Your task to perform on an android device: Go to CNN.com Image 0: 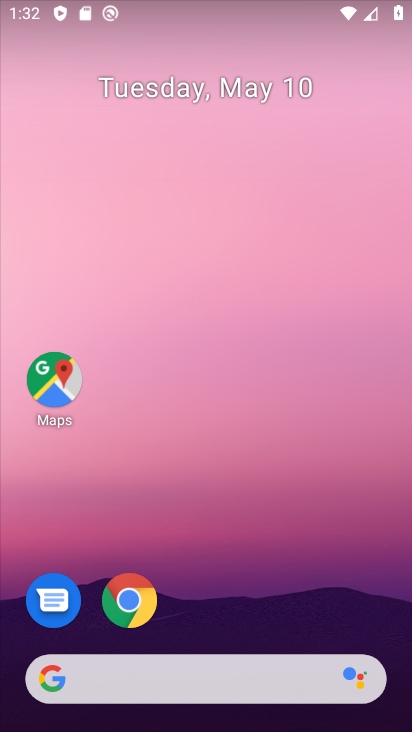
Step 0: drag from (301, 425) to (282, 268)
Your task to perform on an android device: Go to CNN.com Image 1: 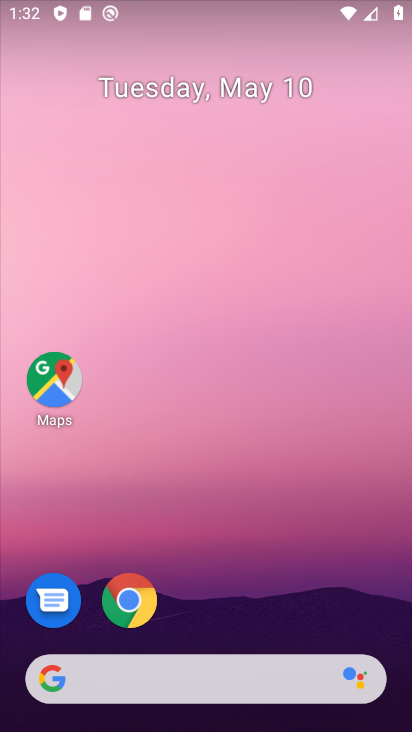
Step 1: click (144, 590)
Your task to perform on an android device: Go to CNN.com Image 2: 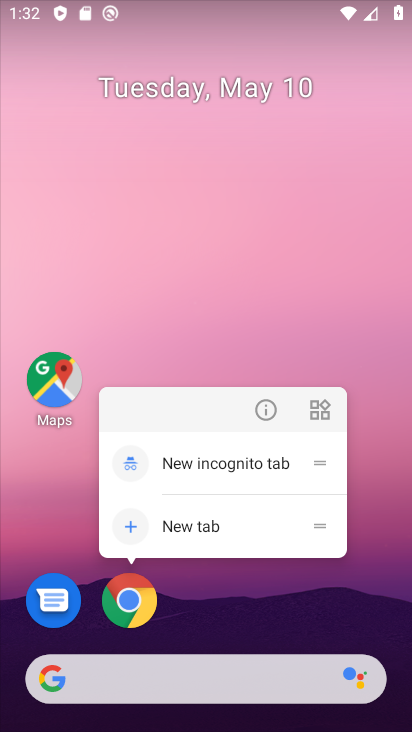
Step 2: click (144, 598)
Your task to perform on an android device: Go to CNN.com Image 3: 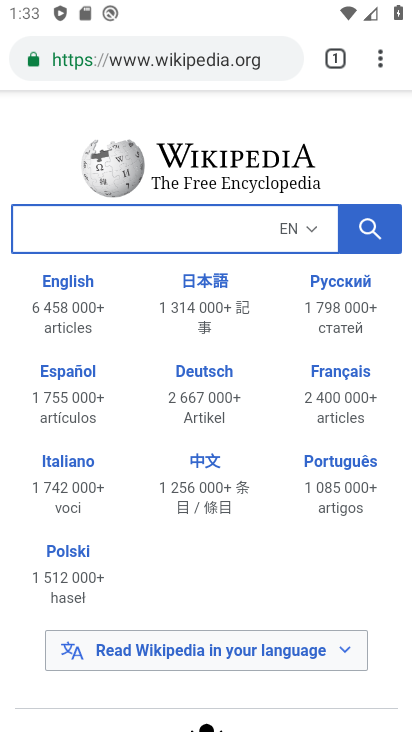
Step 3: click (170, 60)
Your task to perform on an android device: Go to CNN.com Image 4: 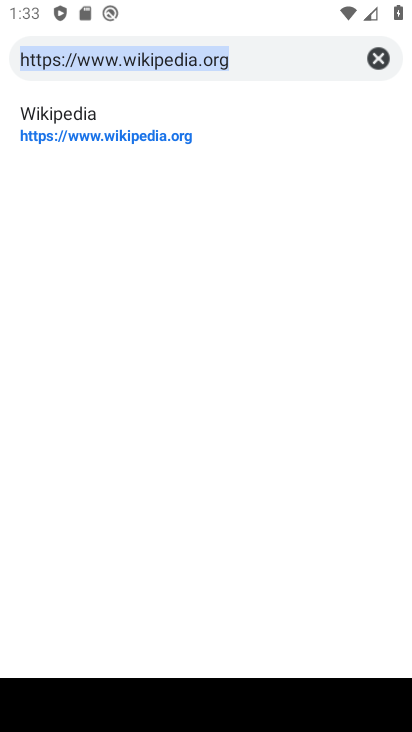
Step 4: type "cnn.com"
Your task to perform on an android device: Go to CNN.com Image 5: 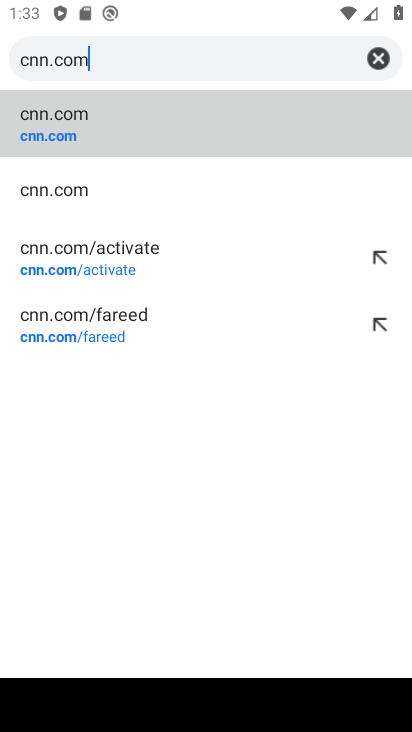
Step 5: click (333, 139)
Your task to perform on an android device: Go to CNN.com Image 6: 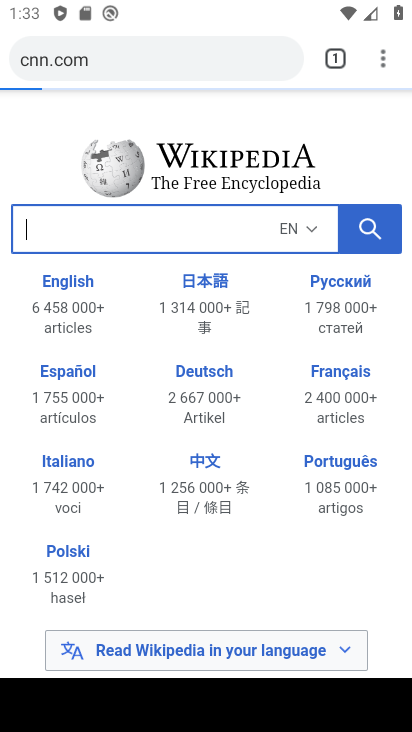
Step 6: click (335, 139)
Your task to perform on an android device: Go to CNN.com Image 7: 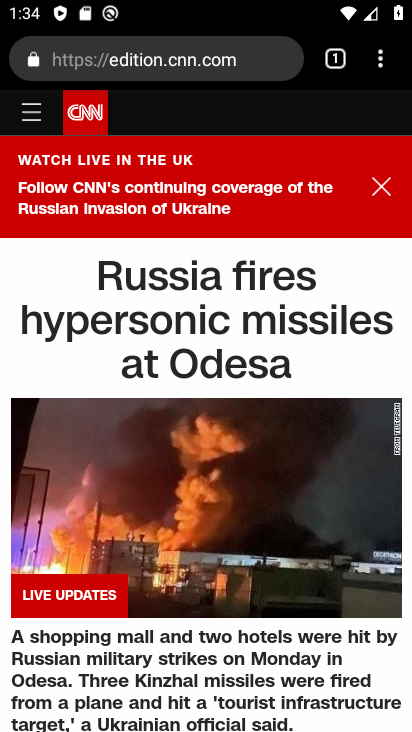
Step 7: task complete